Your task to perform on an android device: turn on bluetooth scan Image 0: 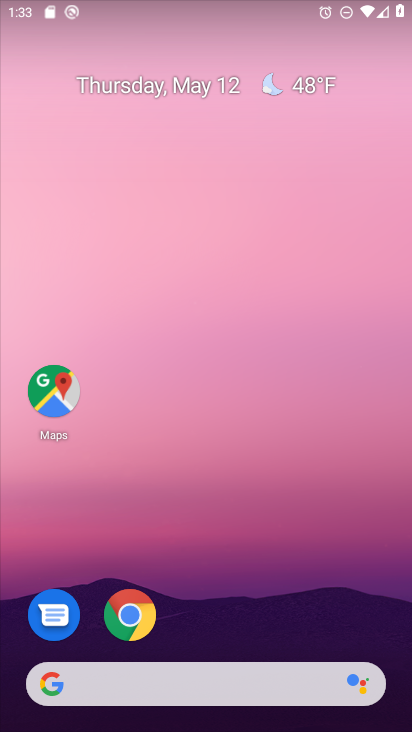
Step 0: drag from (307, 696) to (331, 35)
Your task to perform on an android device: turn on bluetooth scan Image 1: 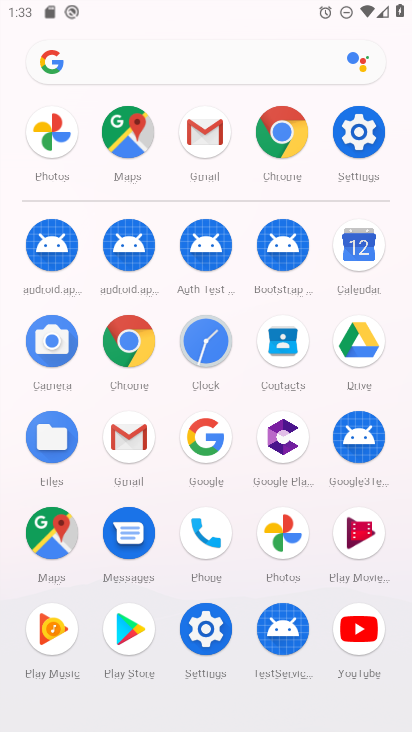
Step 1: click (357, 140)
Your task to perform on an android device: turn on bluetooth scan Image 2: 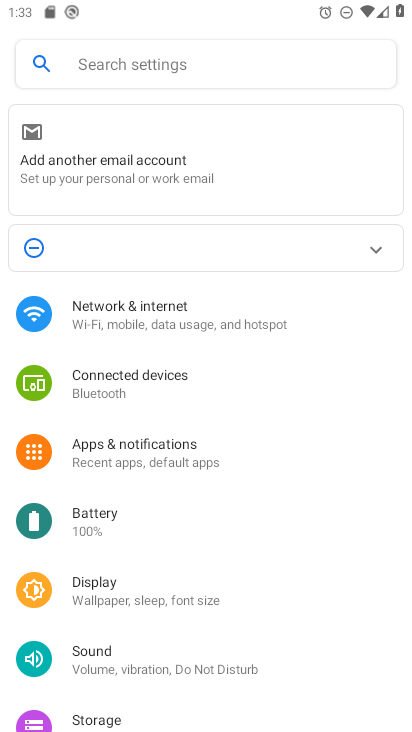
Step 2: click (167, 462)
Your task to perform on an android device: turn on bluetooth scan Image 3: 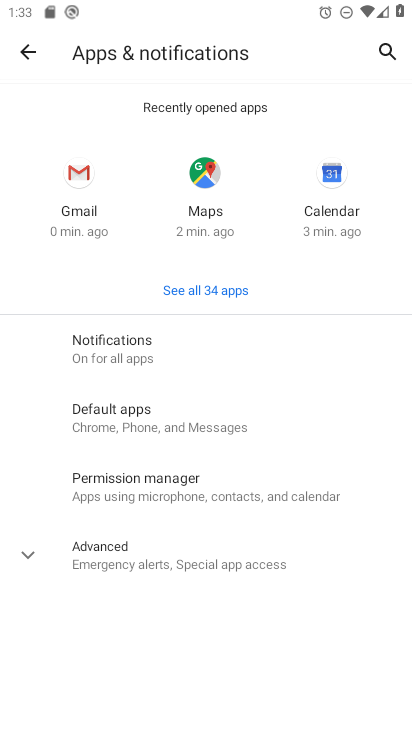
Step 3: press back button
Your task to perform on an android device: turn on bluetooth scan Image 4: 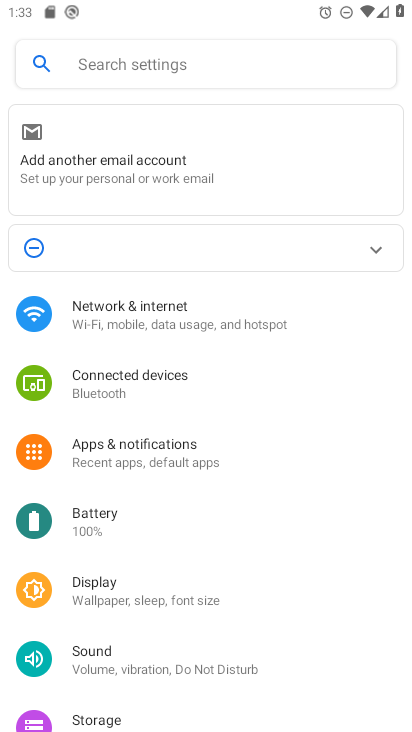
Step 4: drag from (242, 629) to (287, 92)
Your task to perform on an android device: turn on bluetooth scan Image 5: 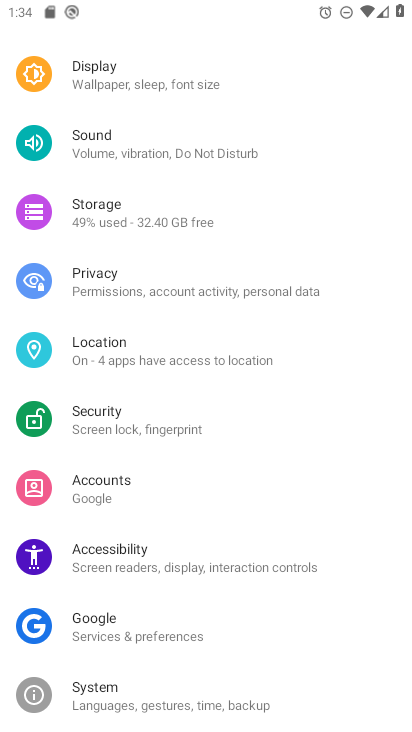
Step 5: click (183, 362)
Your task to perform on an android device: turn on bluetooth scan Image 6: 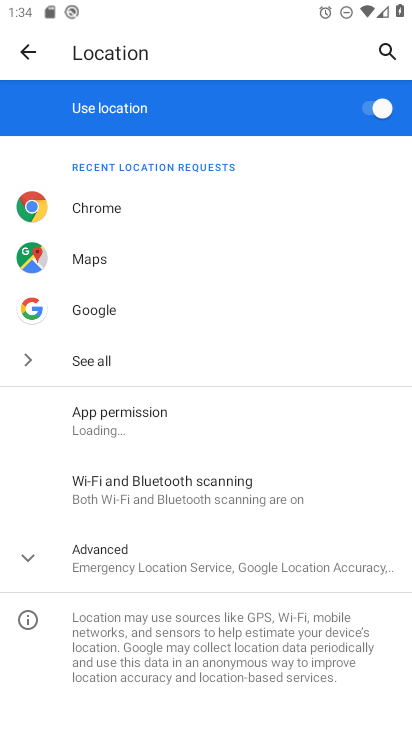
Step 6: click (208, 494)
Your task to perform on an android device: turn on bluetooth scan Image 7: 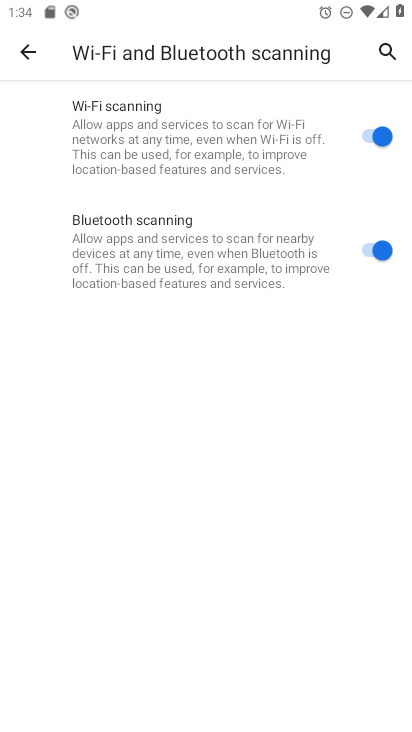
Step 7: task complete